Your task to perform on an android device: Show me productivity apps on the Play Store Image 0: 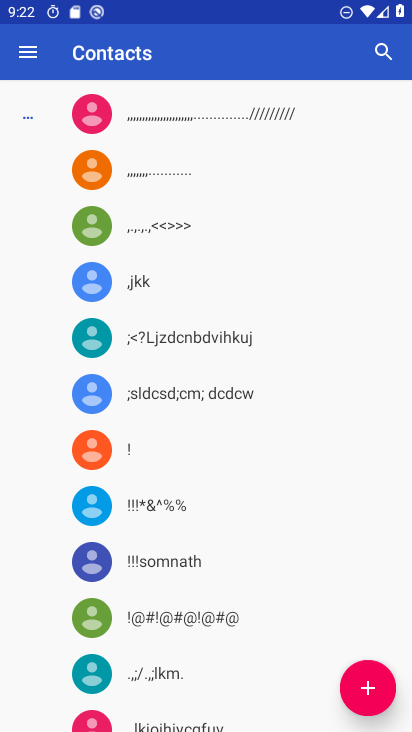
Step 0: press back button
Your task to perform on an android device: Show me productivity apps on the Play Store Image 1: 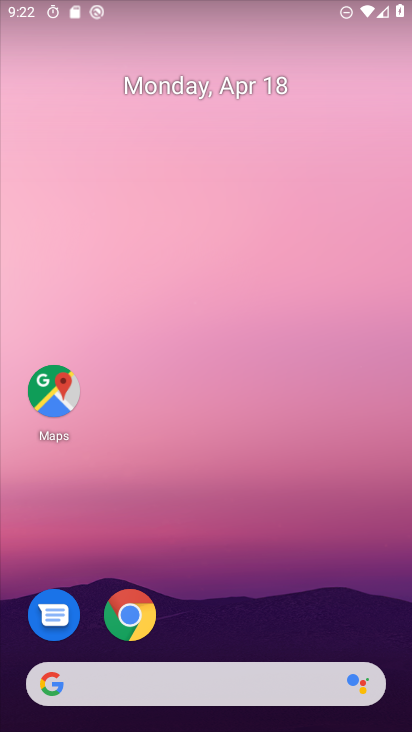
Step 1: drag from (162, 663) to (257, 274)
Your task to perform on an android device: Show me productivity apps on the Play Store Image 2: 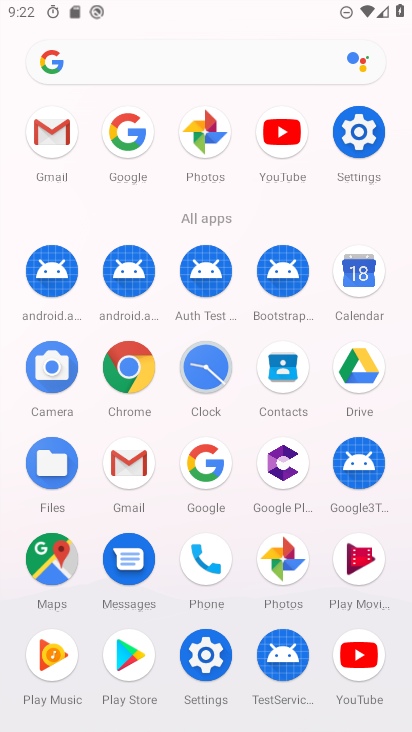
Step 2: click (129, 645)
Your task to perform on an android device: Show me productivity apps on the Play Store Image 3: 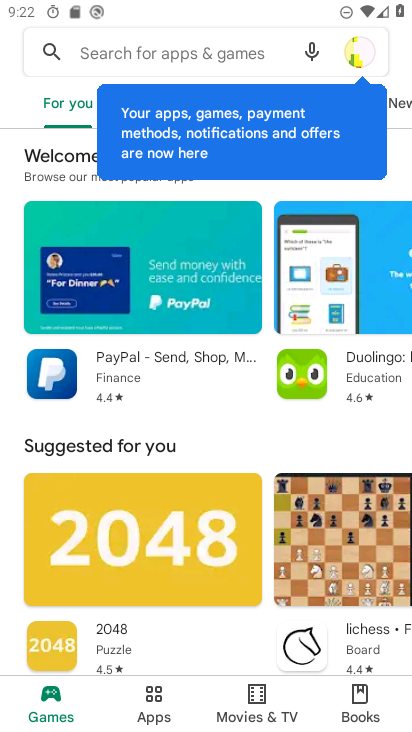
Step 3: click (164, 696)
Your task to perform on an android device: Show me productivity apps on the Play Store Image 4: 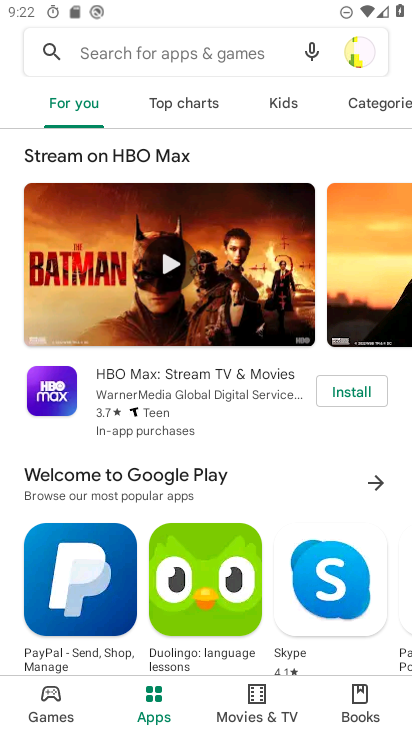
Step 4: task complete